Your task to perform on an android device: turn off airplane mode Image 0: 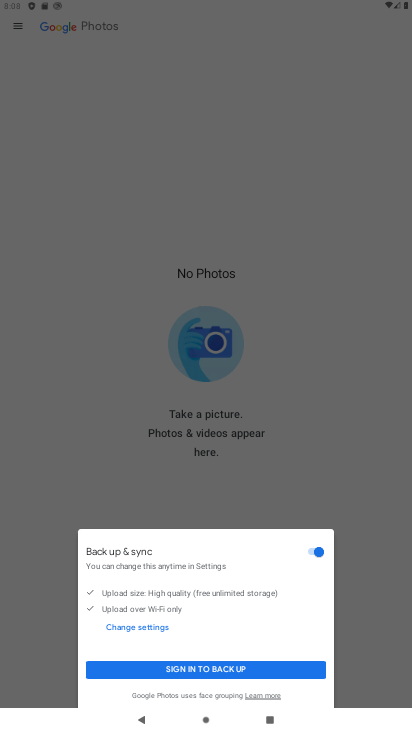
Step 0: press home button
Your task to perform on an android device: turn off airplane mode Image 1: 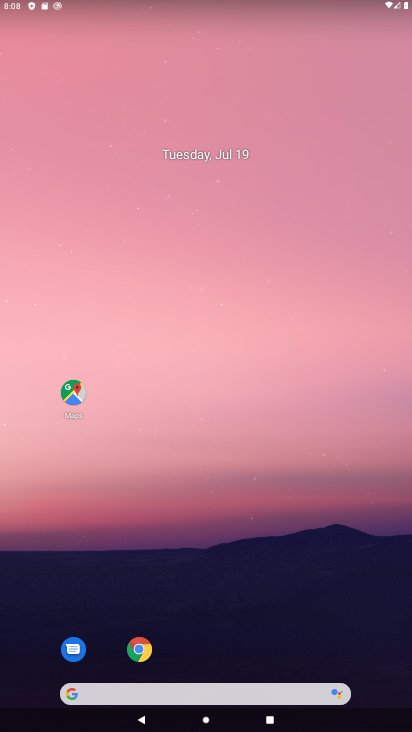
Step 1: task complete